Your task to perform on an android device: empty trash in google photos Image 0: 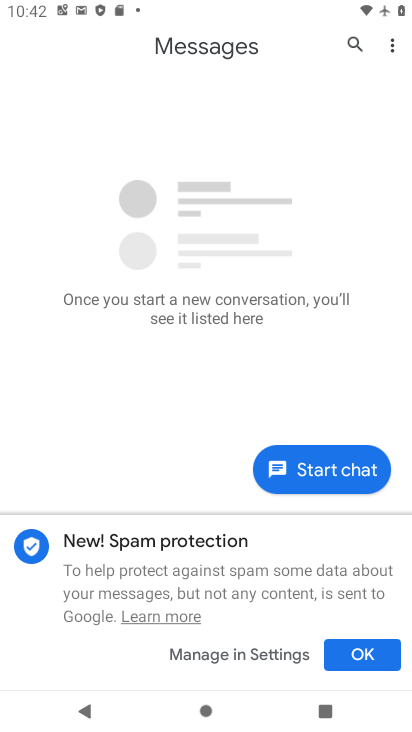
Step 0: press home button
Your task to perform on an android device: empty trash in google photos Image 1: 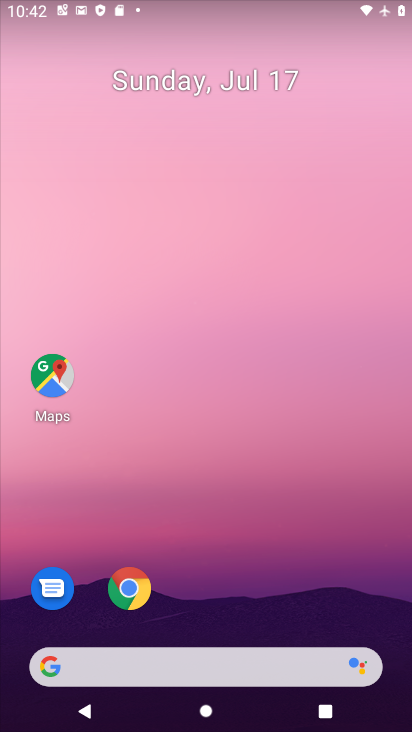
Step 1: drag from (246, 602) to (224, 81)
Your task to perform on an android device: empty trash in google photos Image 2: 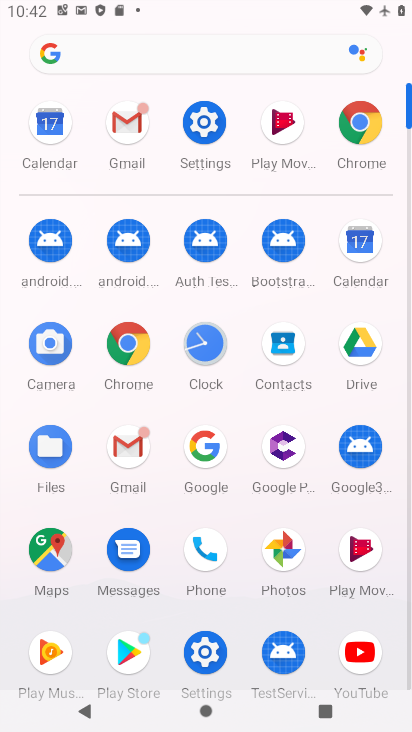
Step 2: click (292, 562)
Your task to perform on an android device: empty trash in google photos Image 3: 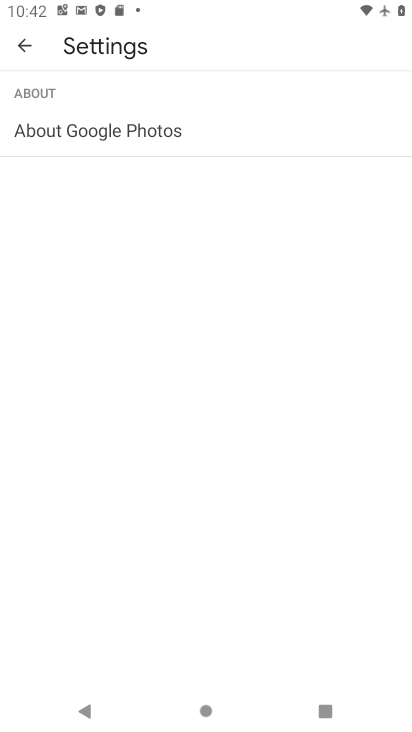
Step 3: click (19, 54)
Your task to perform on an android device: empty trash in google photos Image 4: 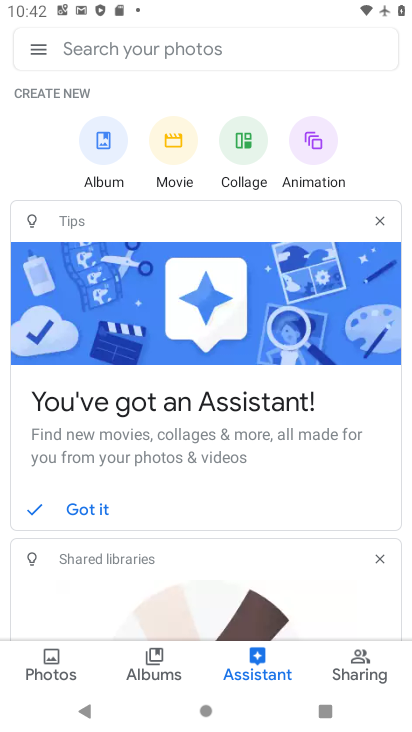
Step 4: click (22, 55)
Your task to perform on an android device: empty trash in google photos Image 5: 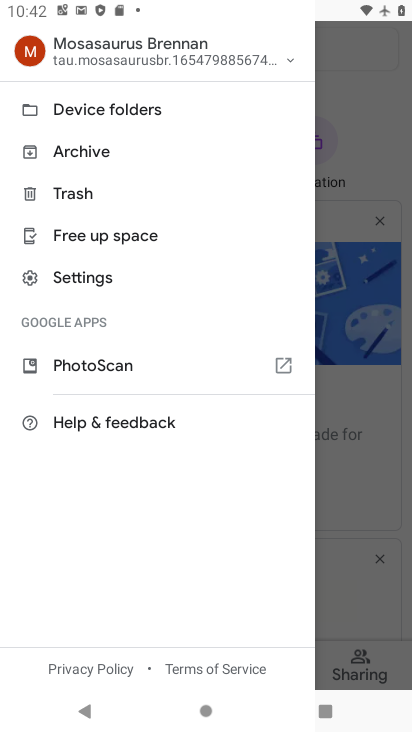
Step 5: click (73, 195)
Your task to perform on an android device: empty trash in google photos Image 6: 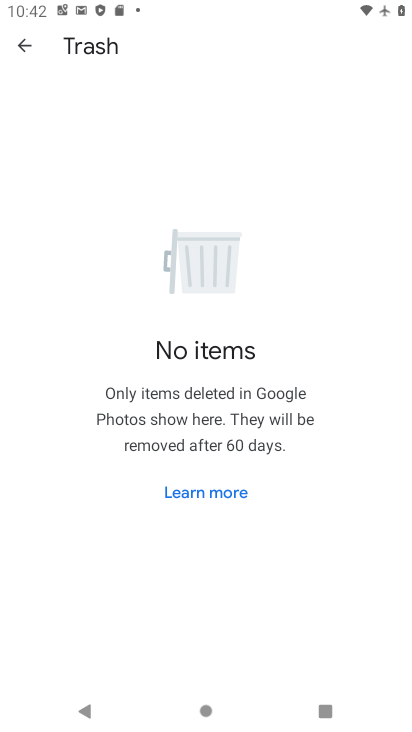
Step 6: task complete